Your task to perform on an android device: What's on my calendar tomorrow? Image 0: 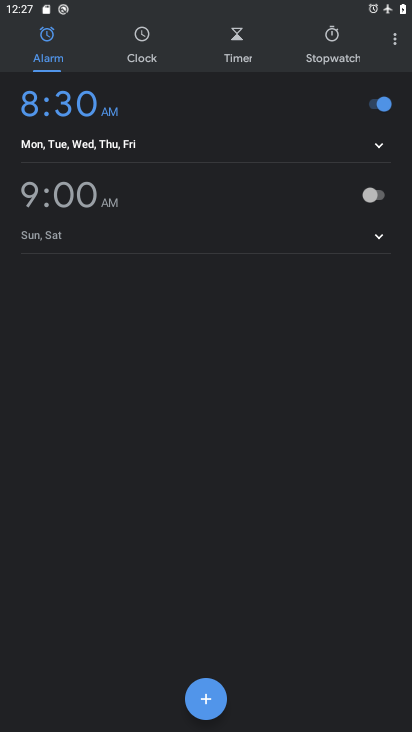
Step 0: press home button
Your task to perform on an android device: What's on my calendar tomorrow? Image 1: 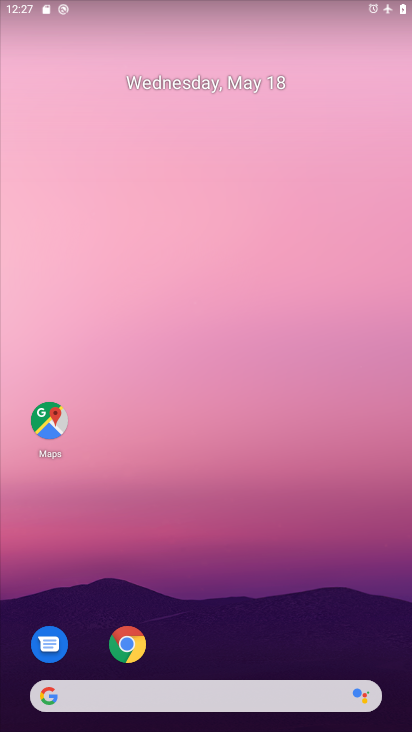
Step 1: drag from (261, 658) to (320, 169)
Your task to perform on an android device: What's on my calendar tomorrow? Image 2: 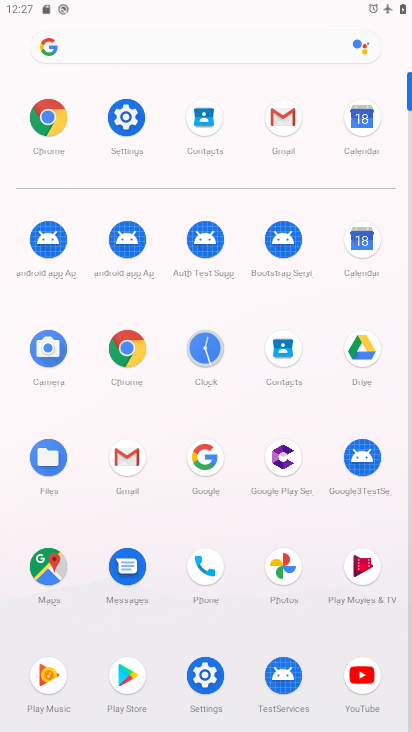
Step 2: click (362, 235)
Your task to perform on an android device: What's on my calendar tomorrow? Image 3: 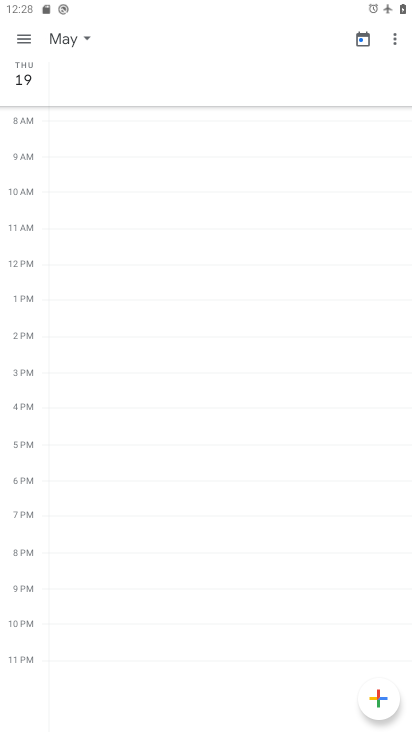
Step 3: drag from (34, 470) to (50, 328)
Your task to perform on an android device: What's on my calendar tomorrow? Image 4: 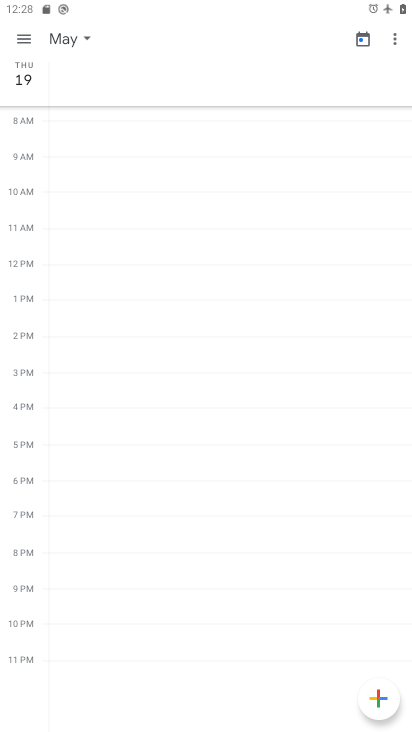
Step 4: click (55, 295)
Your task to perform on an android device: What's on my calendar tomorrow? Image 5: 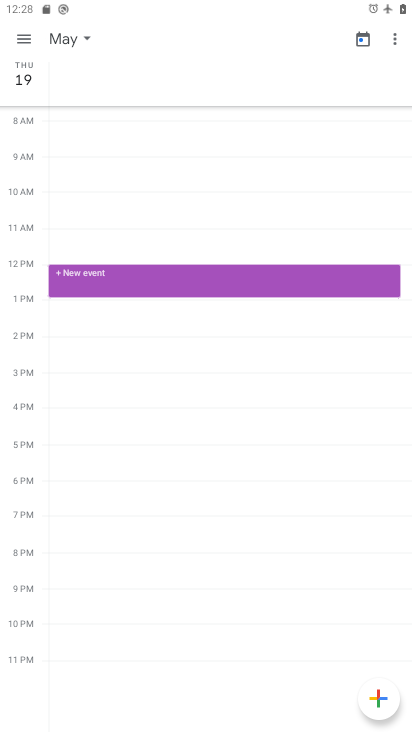
Step 5: task complete